Your task to perform on an android device: add a contact Image 0: 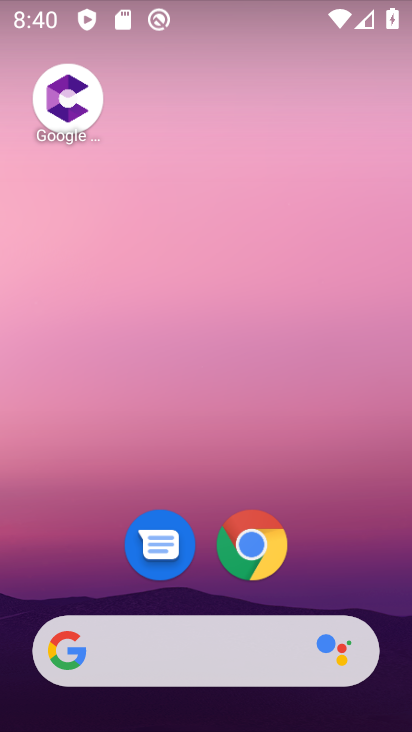
Step 0: drag from (166, 644) to (336, 13)
Your task to perform on an android device: add a contact Image 1: 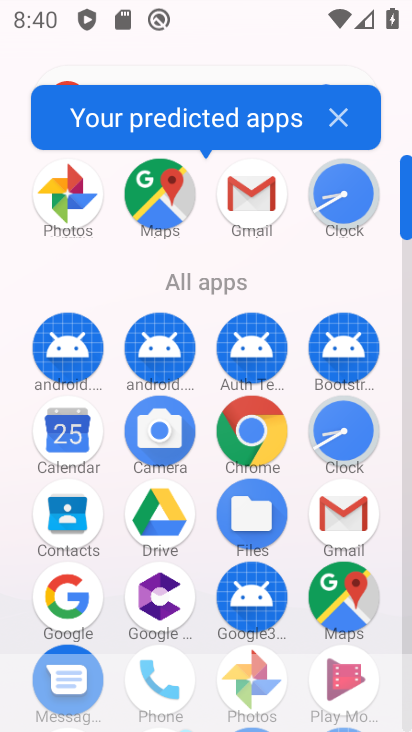
Step 1: click (65, 515)
Your task to perform on an android device: add a contact Image 2: 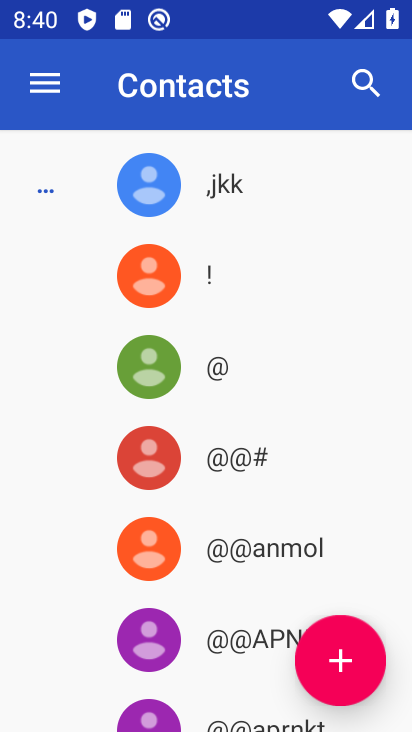
Step 2: click (332, 666)
Your task to perform on an android device: add a contact Image 3: 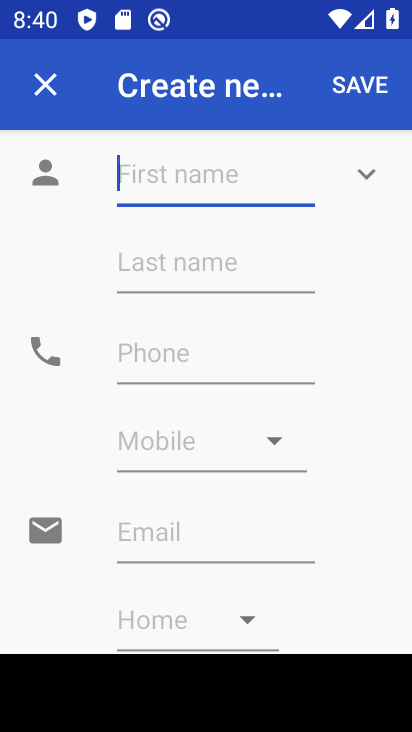
Step 3: type "nhygff"
Your task to perform on an android device: add a contact Image 4: 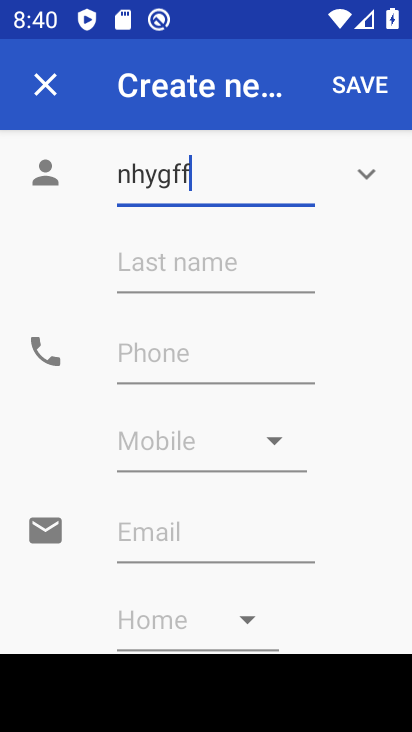
Step 4: click (153, 358)
Your task to perform on an android device: add a contact Image 5: 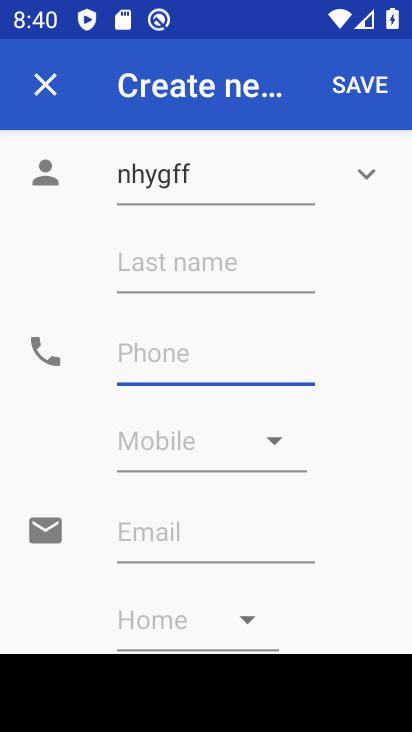
Step 5: type "2311"
Your task to perform on an android device: add a contact Image 6: 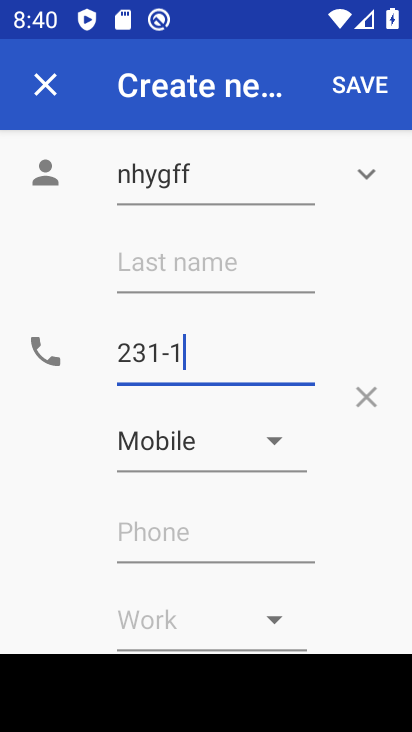
Step 6: click (355, 83)
Your task to perform on an android device: add a contact Image 7: 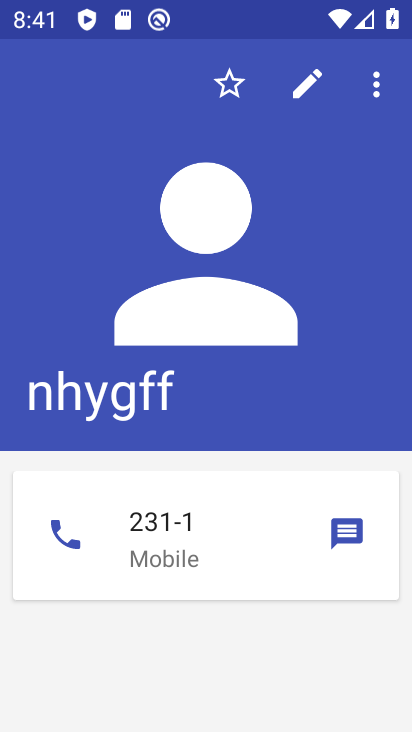
Step 7: task complete